Your task to perform on an android device: Open calendar and show me the fourth week of next month Image 0: 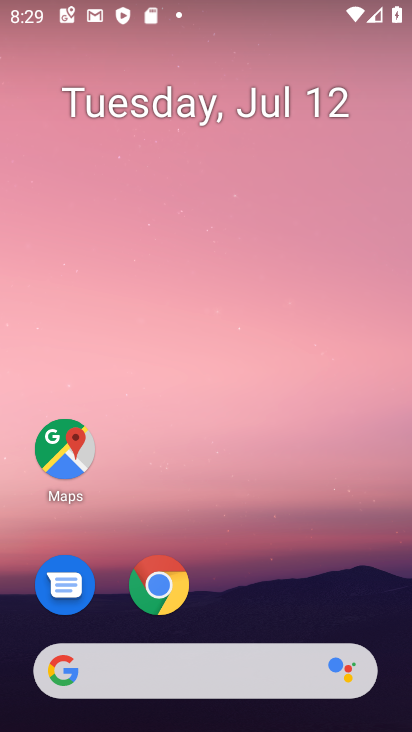
Step 0: drag from (276, 600) to (247, 0)
Your task to perform on an android device: Open calendar and show me the fourth week of next month Image 1: 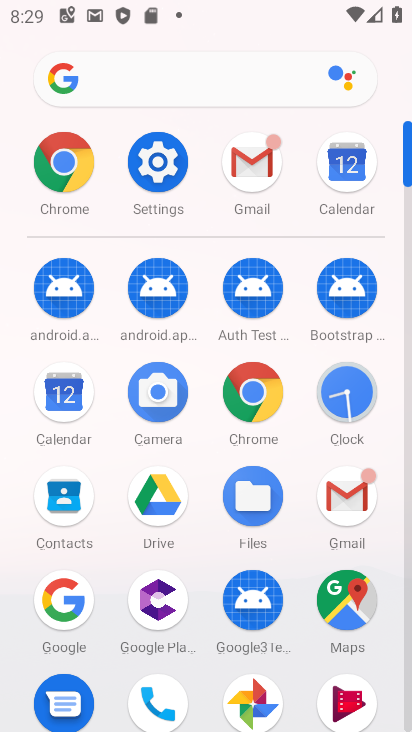
Step 1: click (72, 391)
Your task to perform on an android device: Open calendar and show me the fourth week of next month Image 2: 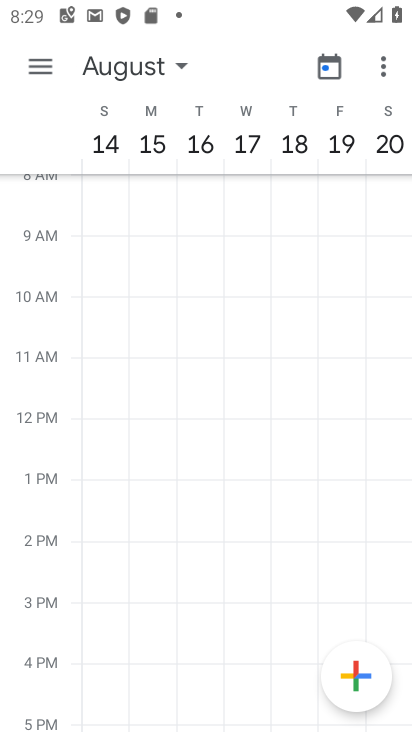
Step 2: click (45, 68)
Your task to perform on an android device: Open calendar and show me the fourth week of next month Image 3: 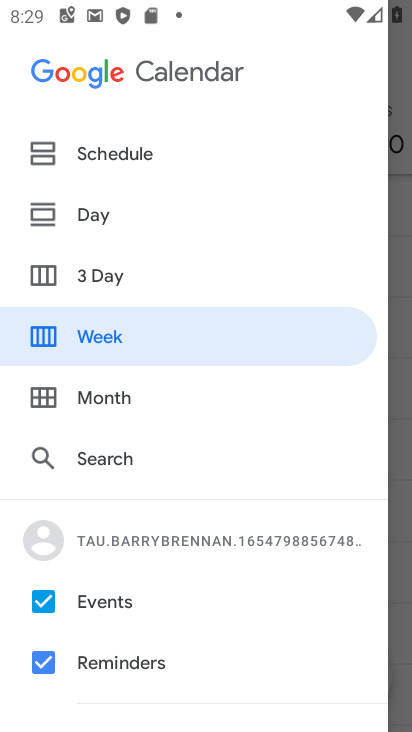
Step 3: click (129, 394)
Your task to perform on an android device: Open calendar and show me the fourth week of next month Image 4: 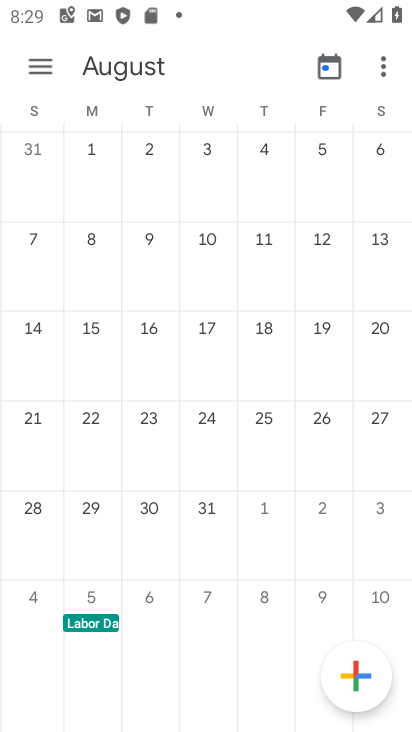
Step 4: click (94, 512)
Your task to perform on an android device: Open calendar and show me the fourth week of next month Image 5: 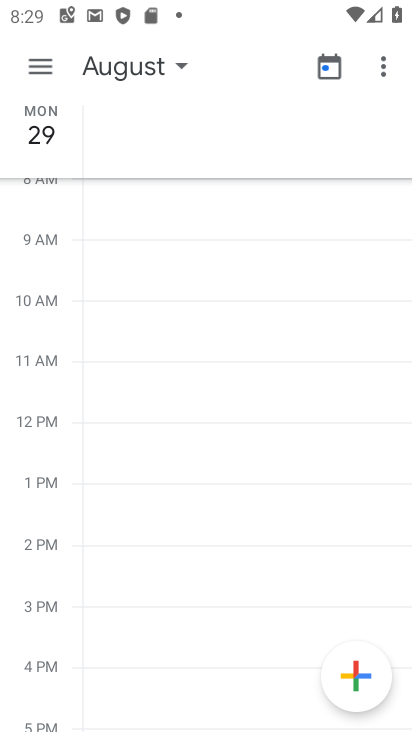
Step 5: click (45, 63)
Your task to perform on an android device: Open calendar and show me the fourth week of next month Image 6: 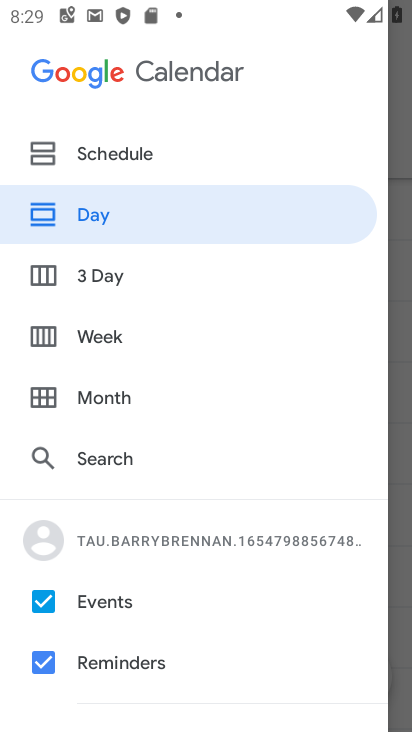
Step 6: click (47, 335)
Your task to perform on an android device: Open calendar and show me the fourth week of next month Image 7: 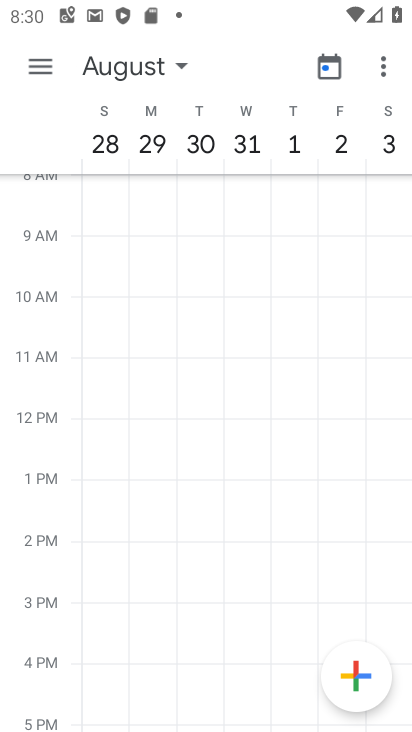
Step 7: task complete